Your task to perform on an android device: Open Google Maps Image 0: 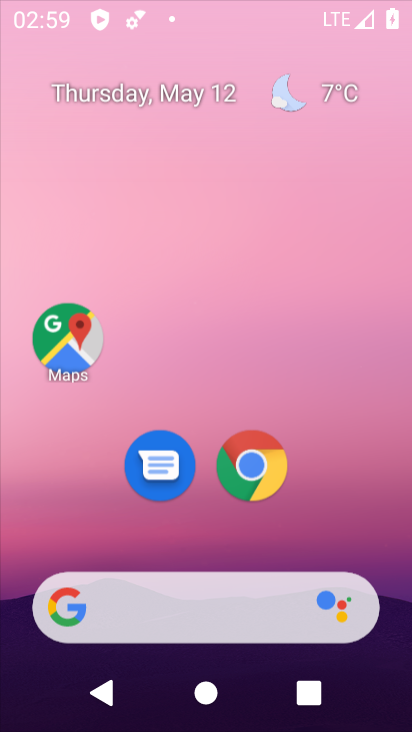
Step 0: click (325, 40)
Your task to perform on an android device: Open Google Maps Image 1: 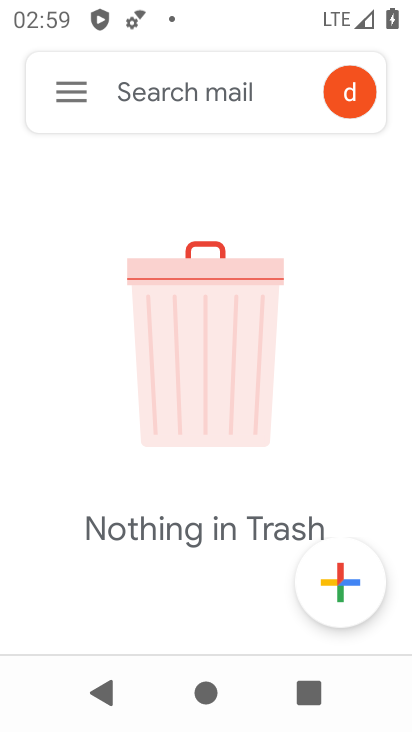
Step 1: press home button
Your task to perform on an android device: Open Google Maps Image 2: 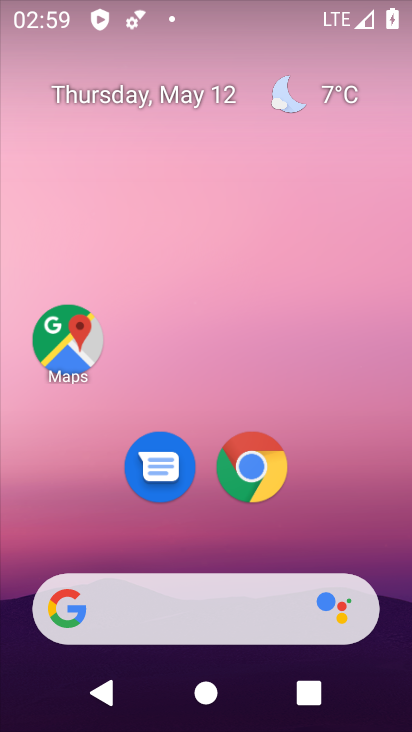
Step 2: click (72, 333)
Your task to perform on an android device: Open Google Maps Image 3: 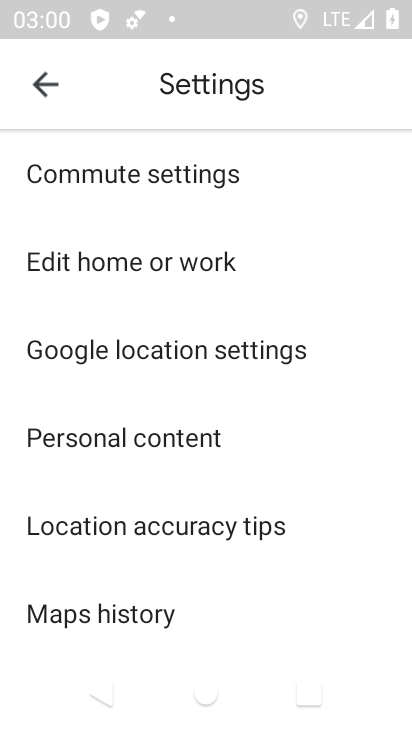
Step 3: click (47, 90)
Your task to perform on an android device: Open Google Maps Image 4: 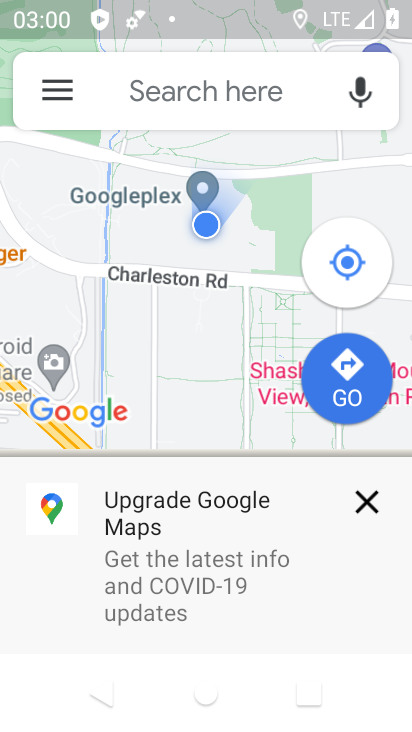
Step 4: task complete